Your task to perform on an android device: Open the calendar and show me this week's events? Image 0: 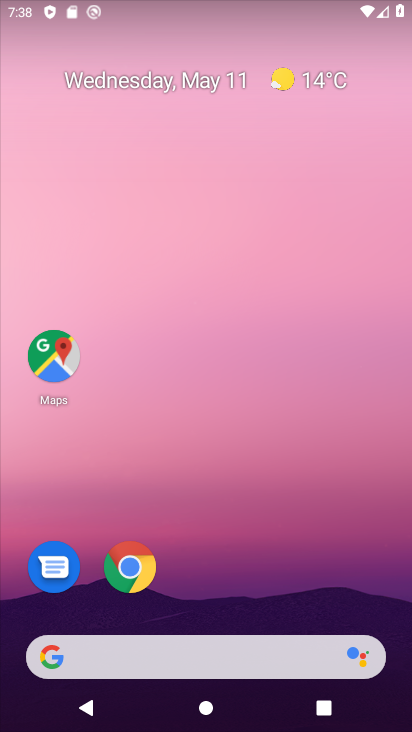
Step 0: drag from (248, 371) to (258, 131)
Your task to perform on an android device: Open the calendar and show me this week's events? Image 1: 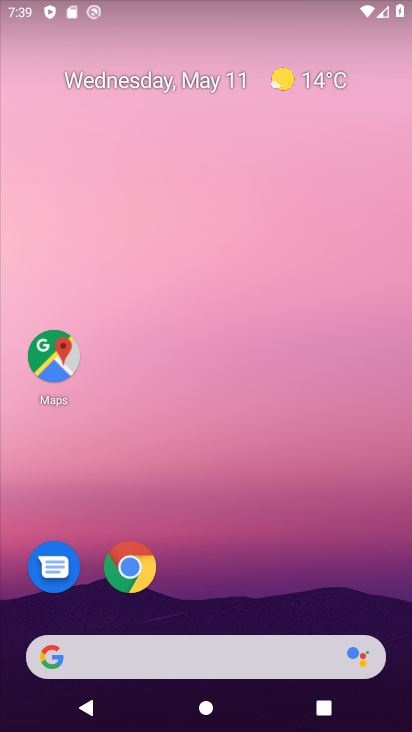
Step 1: drag from (210, 599) to (198, 104)
Your task to perform on an android device: Open the calendar and show me this week's events? Image 2: 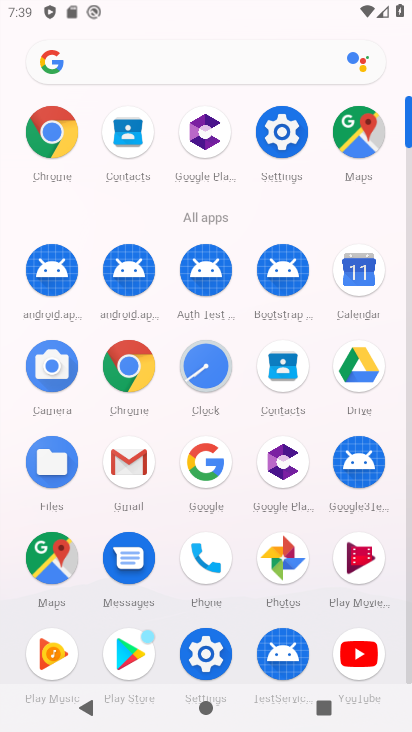
Step 2: click (365, 308)
Your task to perform on an android device: Open the calendar and show me this week's events? Image 3: 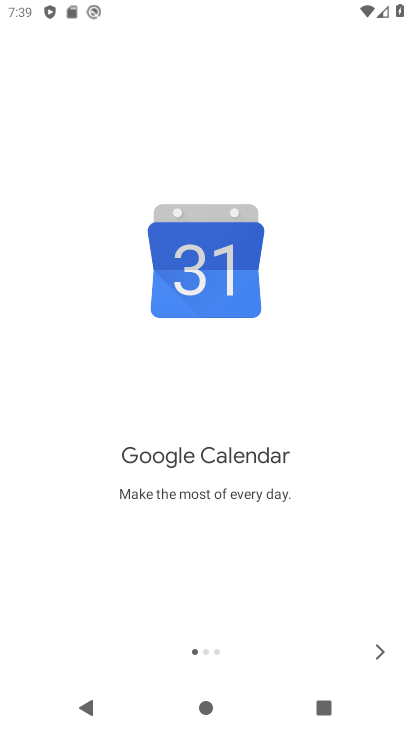
Step 3: click (382, 660)
Your task to perform on an android device: Open the calendar and show me this week's events? Image 4: 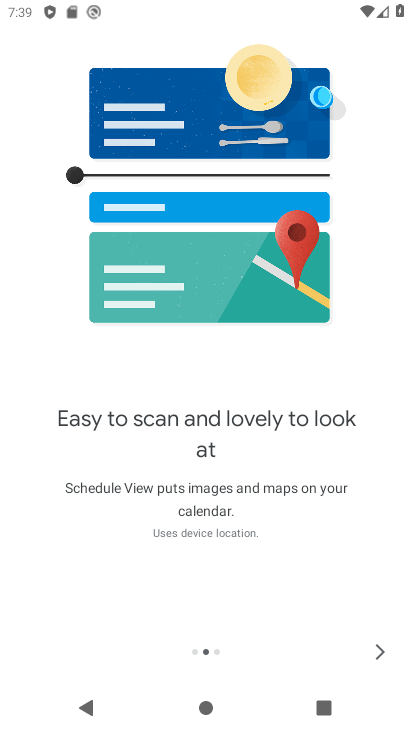
Step 4: click (382, 659)
Your task to perform on an android device: Open the calendar and show me this week's events? Image 5: 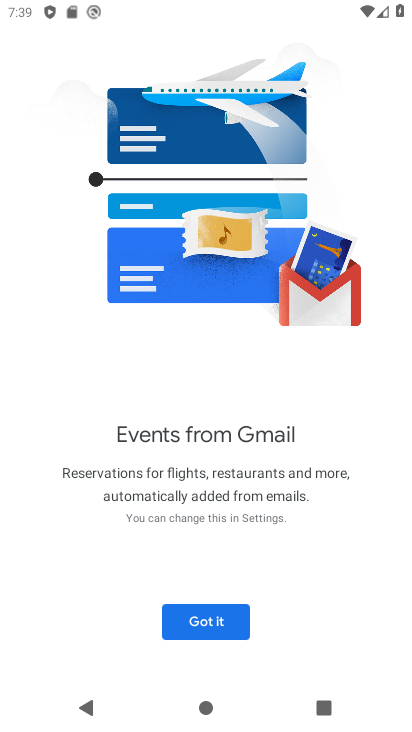
Step 5: click (209, 640)
Your task to perform on an android device: Open the calendar and show me this week's events? Image 6: 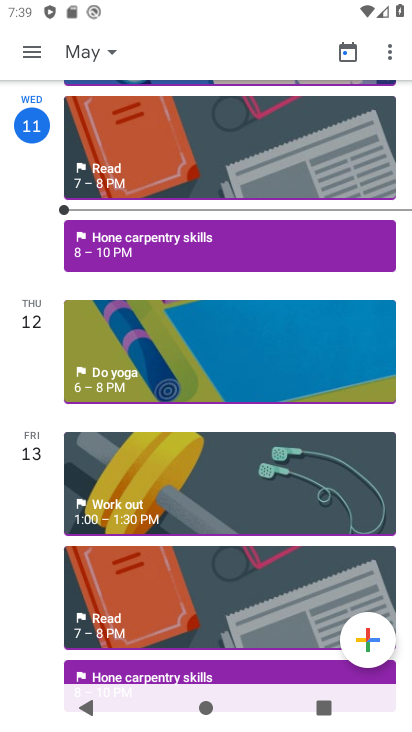
Step 6: click (32, 50)
Your task to perform on an android device: Open the calendar and show me this week's events? Image 7: 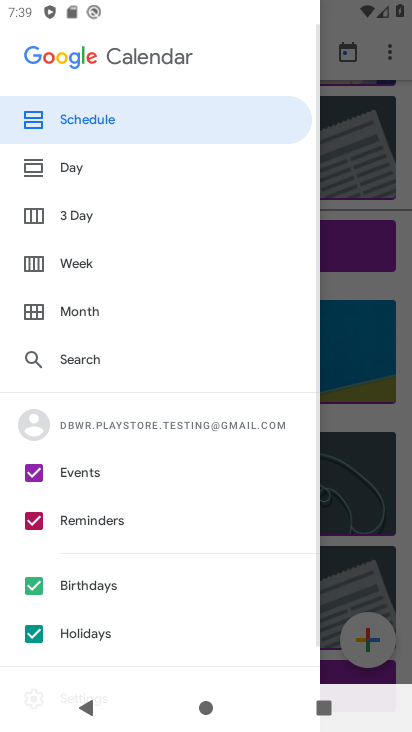
Step 7: click (80, 270)
Your task to perform on an android device: Open the calendar and show me this week's events? Image 8: 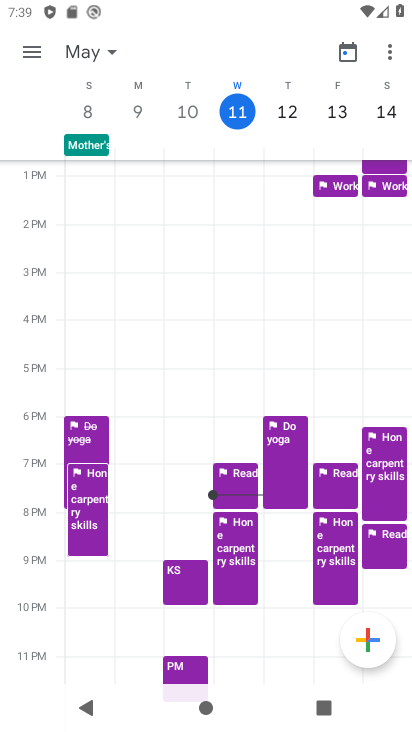
Step 8: click (96, 54)
Your task to perform on an android device: Open the calendar and show me this week's events? Image 9: 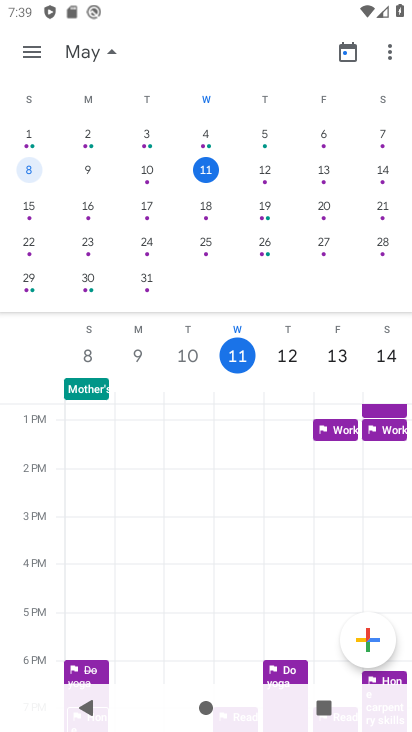
Step 9: task complete